Your task to perform on an android device: turn off data saver in the chrome app Image 0: 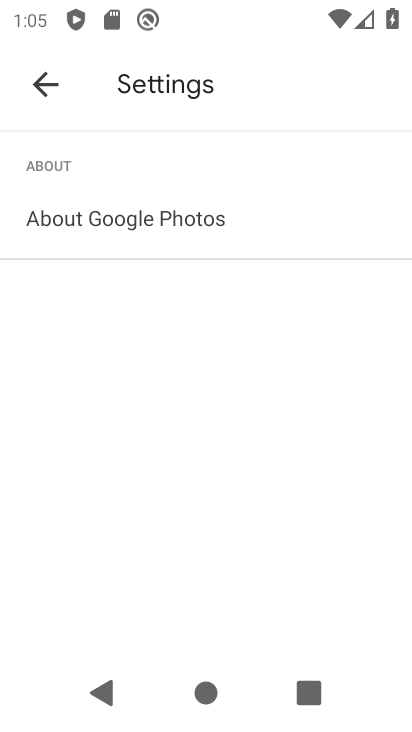
Step 0: press home button
Your task to perform on an android device: turn off data saver in the chrome app Image 1: 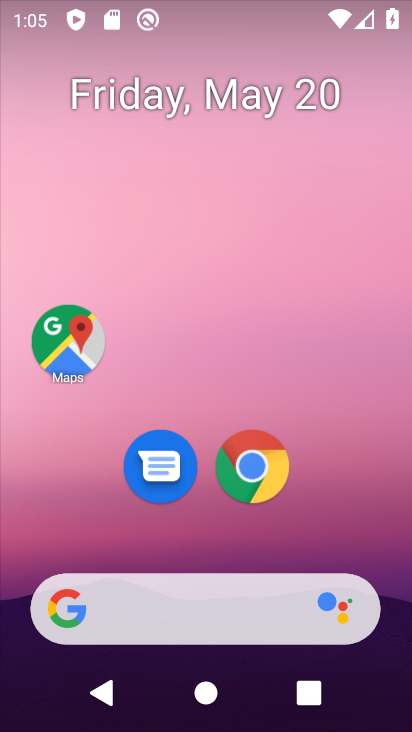
Step 1: click (235, 465)
Your task to perform on an android device: turn off data saver in the chrome app Image 2: 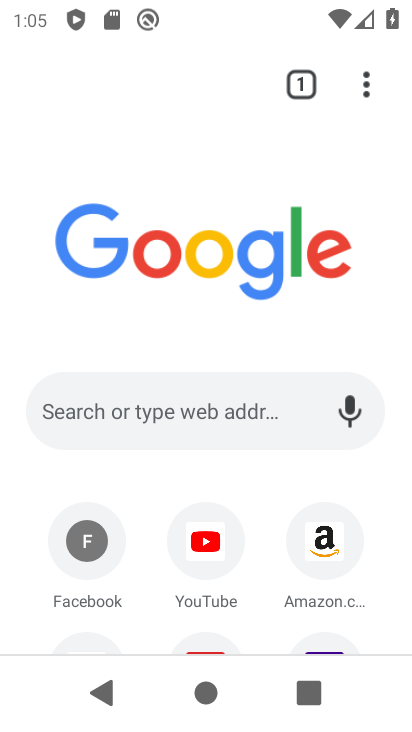
Step 2: click (369, 70)
Your task to perform on an android device: turn off data saver in the chrome app Image 3: 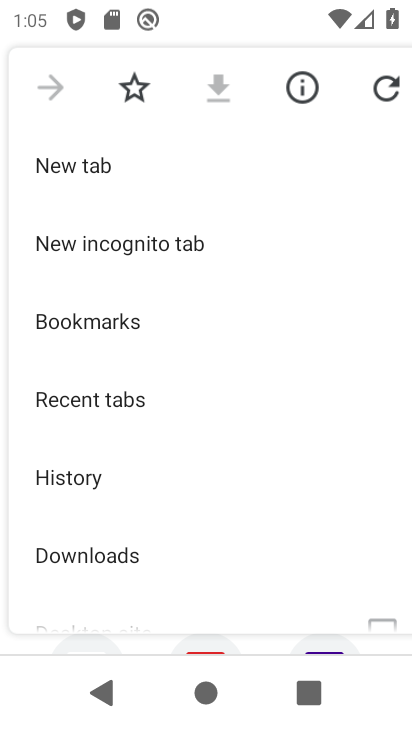
Step 3: drag from (245, 521) to (305, 239)
Your task to perform on an android device: turn off data saver in the chrome app Image 4: 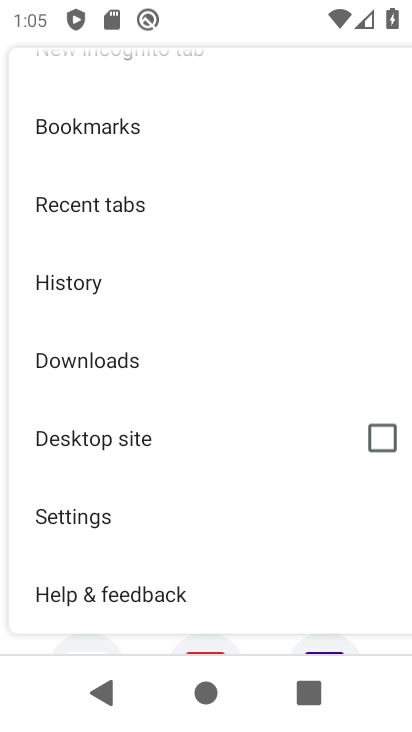
Step 4: click (162, 518)
Your task to perform on an android device: turn off data saver in the chrome app Image 5: 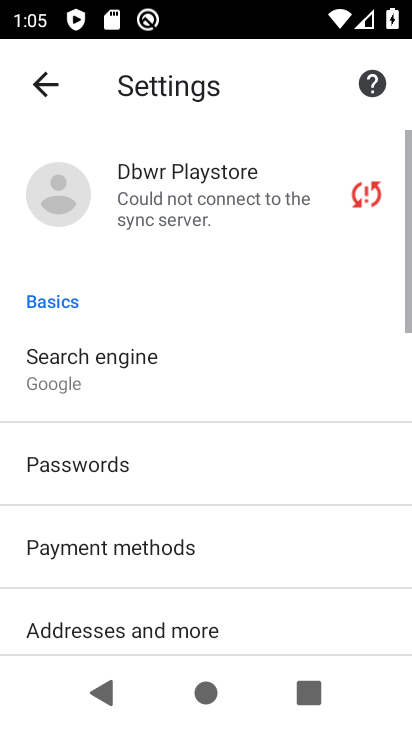
Step 5: drag from (222, 563) to (259, 252)
Your task to perform on an android device: turn off data saver in the chrome app Image 6: 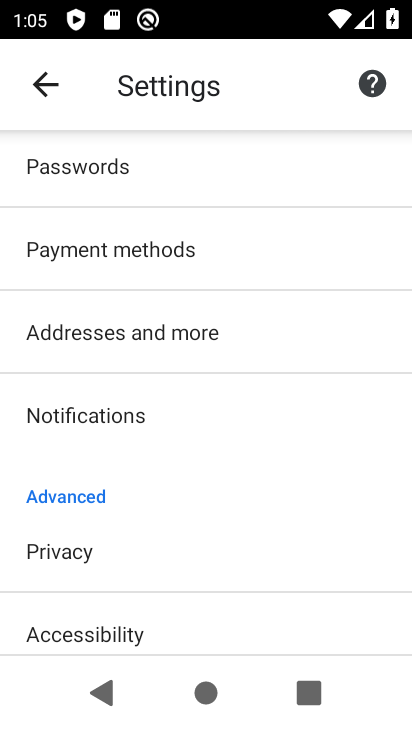
Step 6: drag from (253, 529) to (295, 261)
Your task to perform on an android device: turn off data saver in the chrome app Image 7: 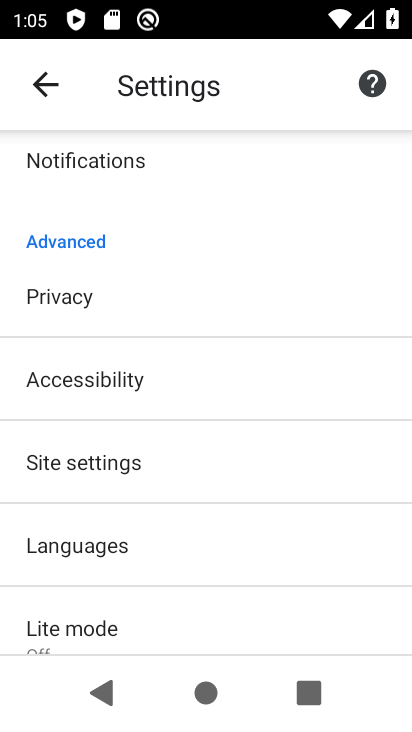
Step 7: click (161, 620)
Your task to perform on an android device: turn off data saver in the chrome app Image 8: 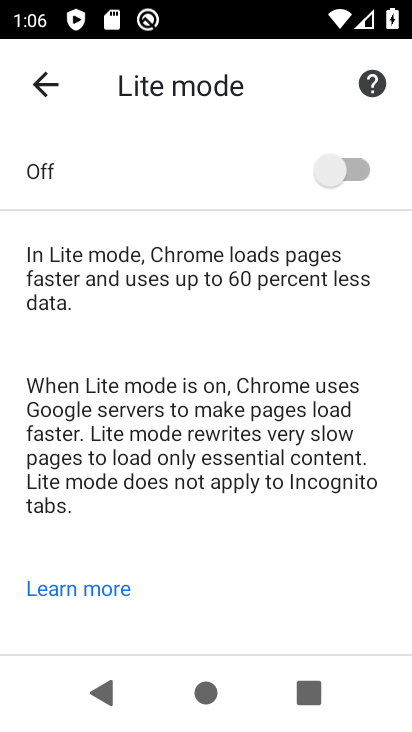
Step 8: task complete